Your task to perform on an android device: open chrome and create a bookmark for the current page Image 0: 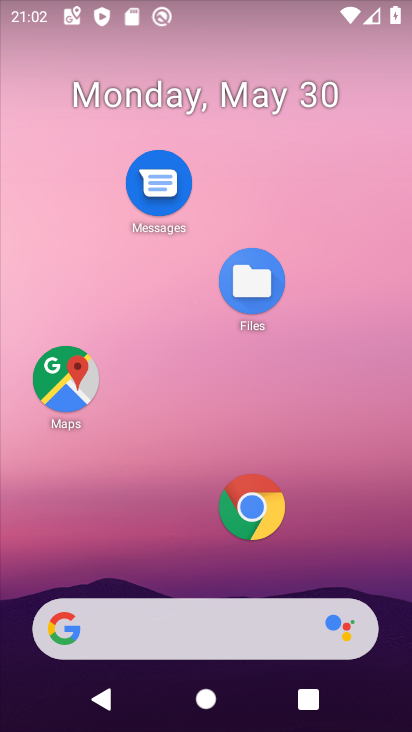
Step 0: drag from (179, 579) to (195, 303)
Your task to perform on an android device: open chrome and create a bookmark for the current page Image 1: 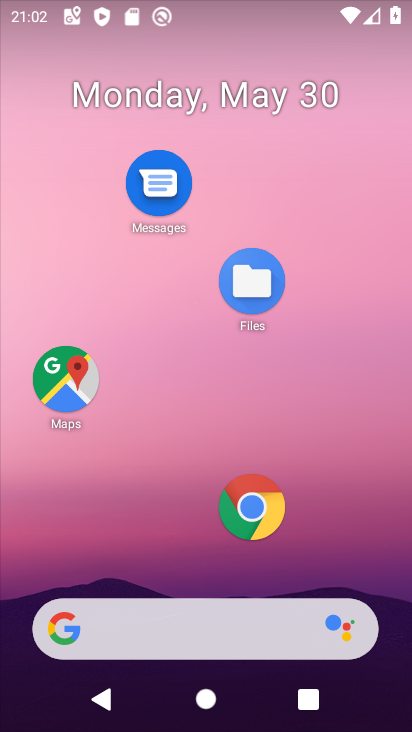
Step 1: click (266, 499)
Your task to perform on an android device: open chrome and create a bookmark for the current page Image 2: 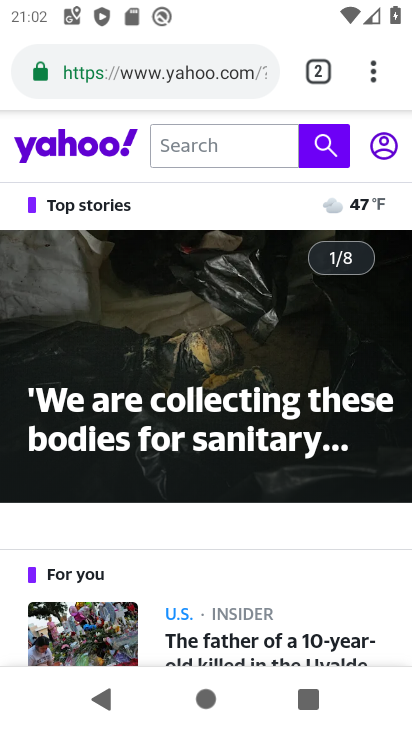
Step 2: click (376, 76)
Your task to perform on an android device: open chrome and create a bookmark for the current page Image 3: 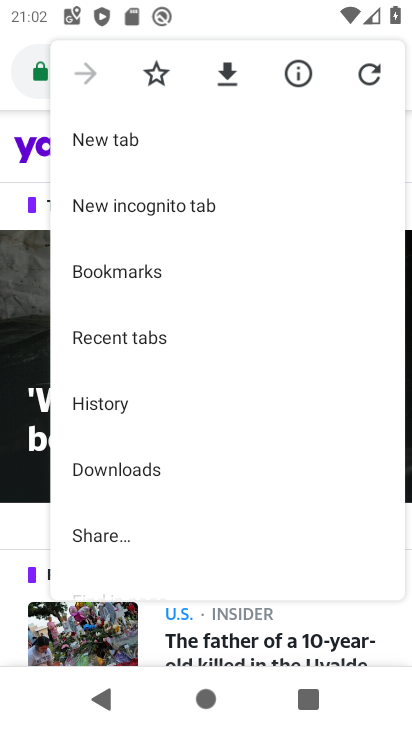
Step 3: click (151, 73)
Your task to perform on an android device: open chrome and create a bookmark for the current page Image 4: 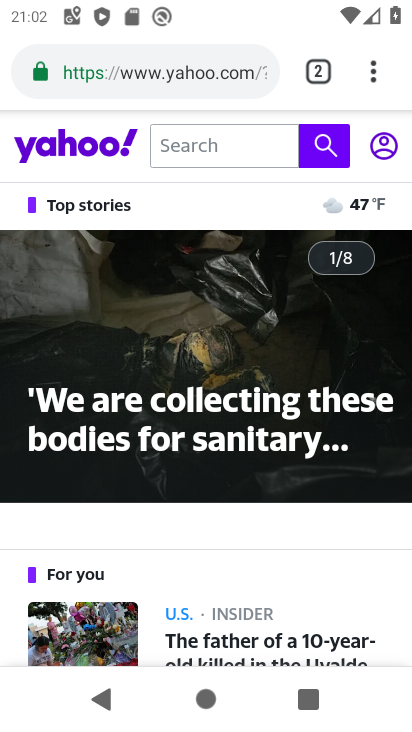
Step 4: task complete